Your task to perform on an android device: find which apps use the phone's location Image 0: 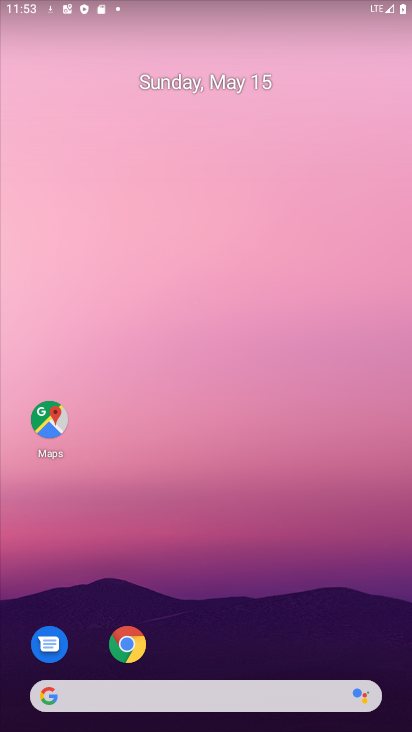
Step 0: drag from (209, 708) to (363, 340)
Your task to perform on an android device: find which apps use the phone's location Image 1: 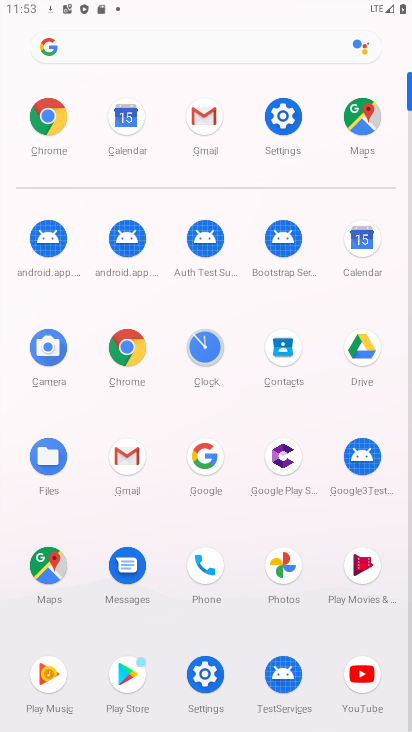
Step 1: click (300, 119)
Your task to perform on an android device: find which apps use the phone's location Image 2: 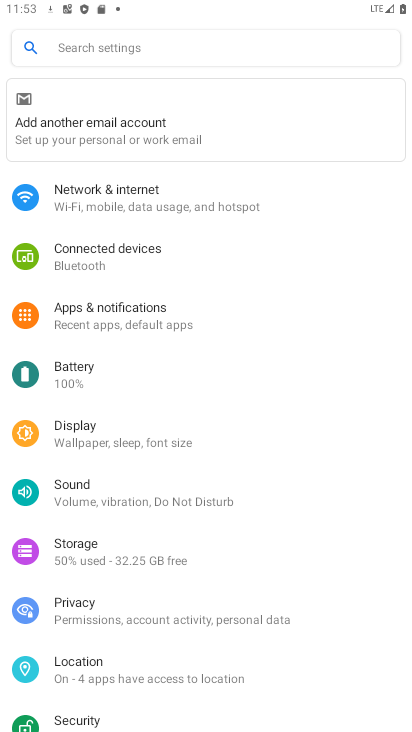
Step 2: click (103, 49)
Your task to perform on an android device: find which apps use the phone's location Image 3: 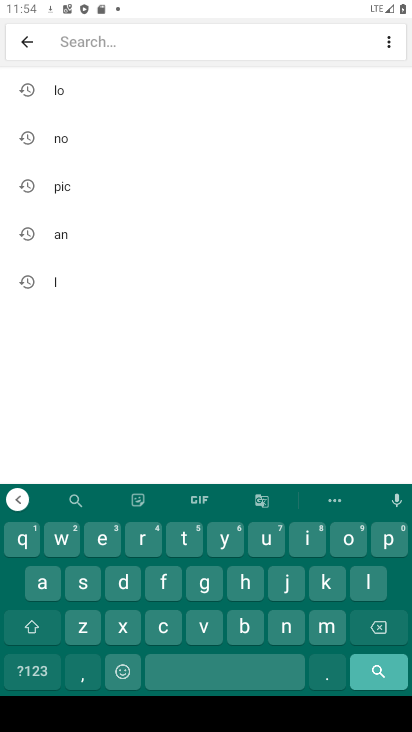
Step 3: click (63, 85)
Your task to perform on an android device: find which apps use the phone's location Image 4: 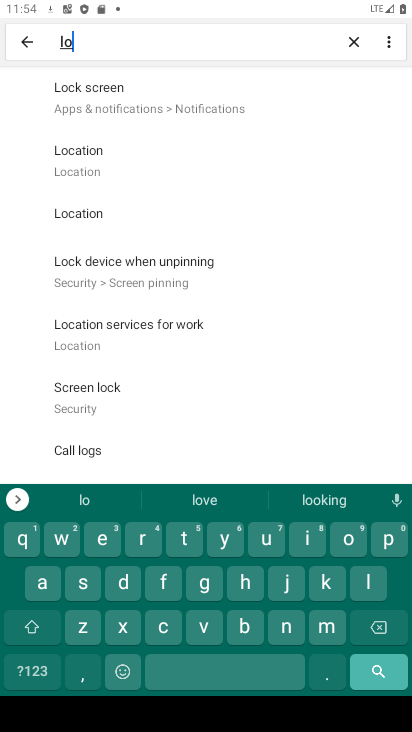
Step 4: click (86, 159)
Your task to perform on an android device: find which apps use the phone's location Image 5: 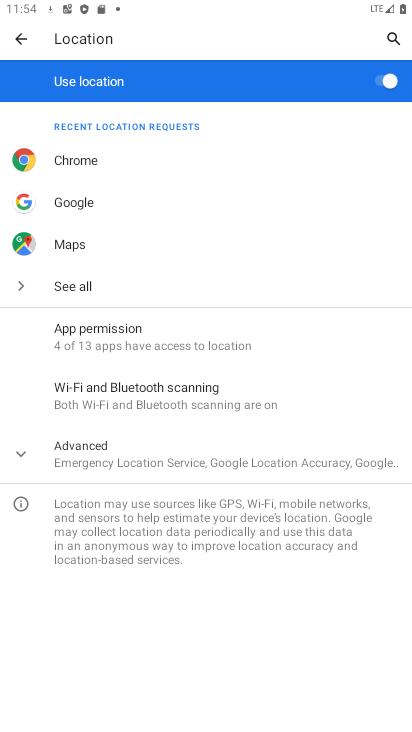
Step 5: task complete